Your task to perform on an android device: Go to settings Image 0: 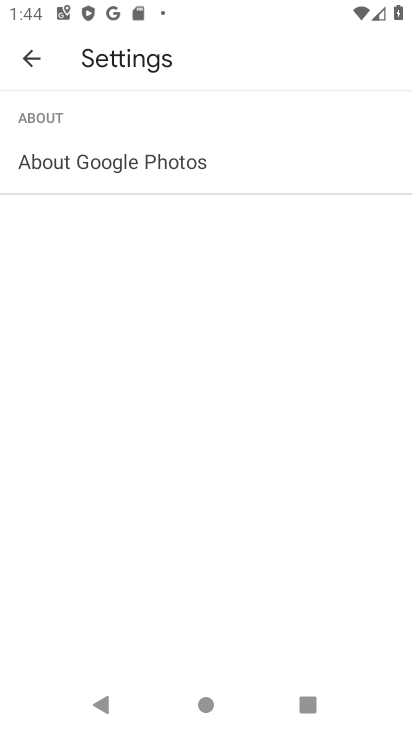
Step 0: press home button
Your task to perform on an android device: Go to settings Image 1: 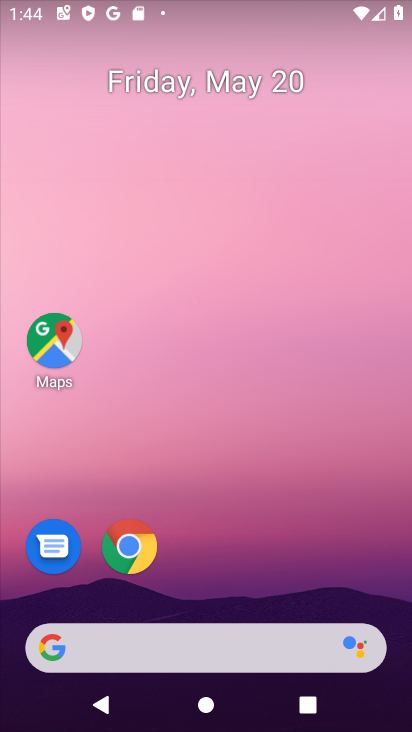
Step 1: drag from (260, 601) to (357, 35)
Your task to perform on an android device: Go to settings Image 2: 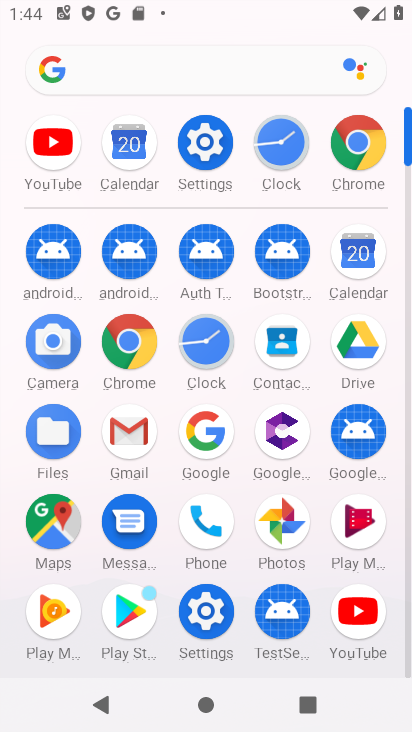
Step 2: click (212, 142)
Your task to perform on an android device: Go to settings Image 3: 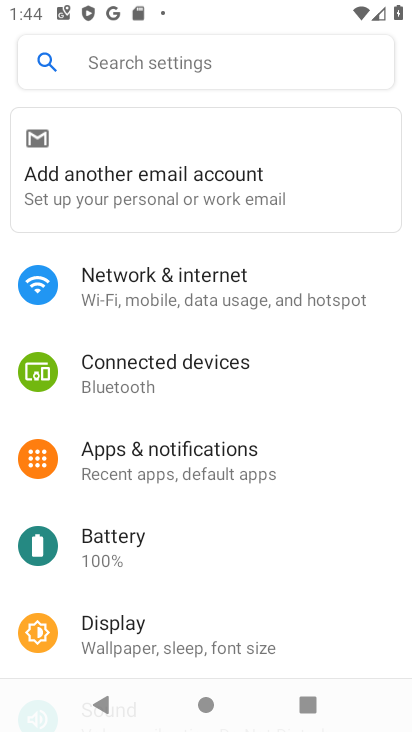
Step 3: task complete